Your task to perform on an android device: see tabs open on other devices in the chrome app Image 0: 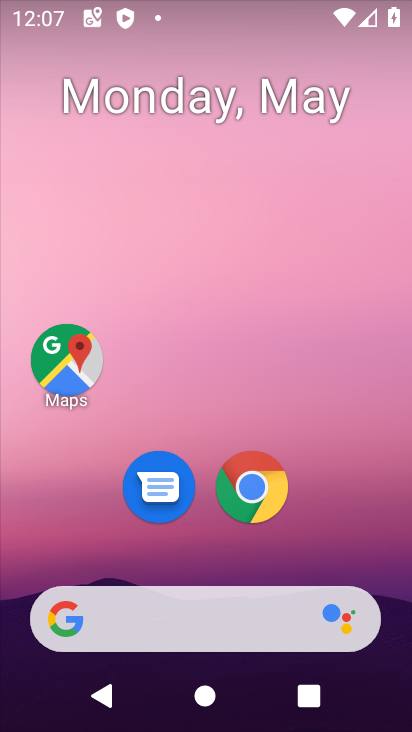
Step 0: drag from (336, 560) to (384, 7)
Your task to perform on an android device: see tabs open on other devices in the chrome app Image 1: 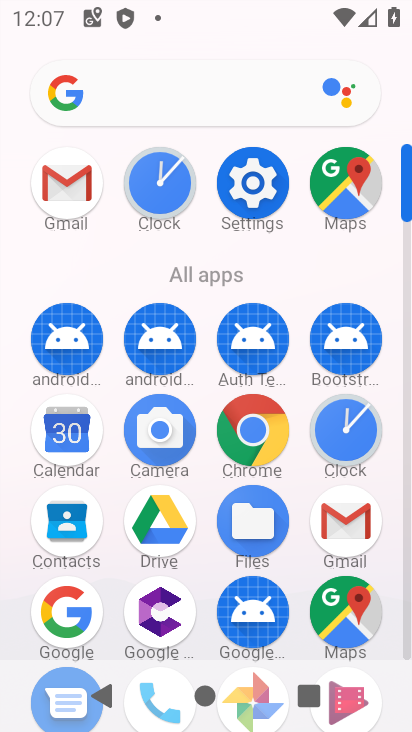
Step 1: click (246, 427)
Your task to perform on an android device: see tabs open on other devices in the chrome app Image 2: 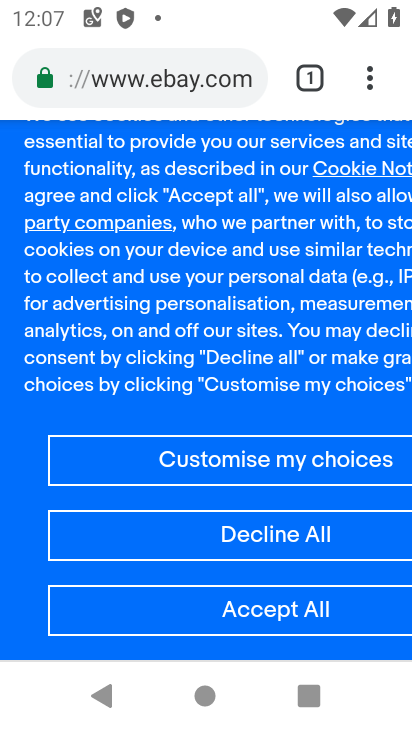
Step 2: click (366, 69)
Your task to perform on an android device: see tabs open on other devices in the chrome app Image 3: 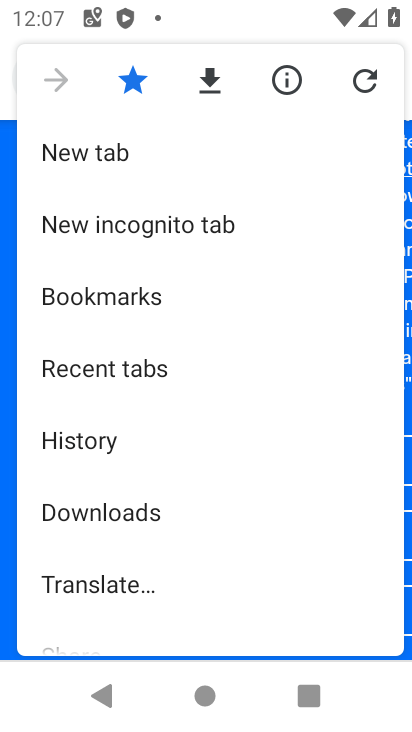
Step 3: click (66, 371)
Your task to perform on an android device: see tabs open on other devices in the chrome app Image 4: 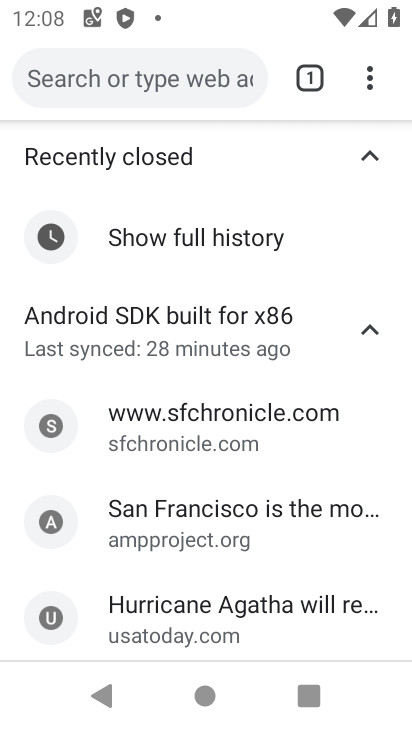
Step 4: task complete